Your task to perform on an android device: delete the emails in spam in the gmail app Image 0: 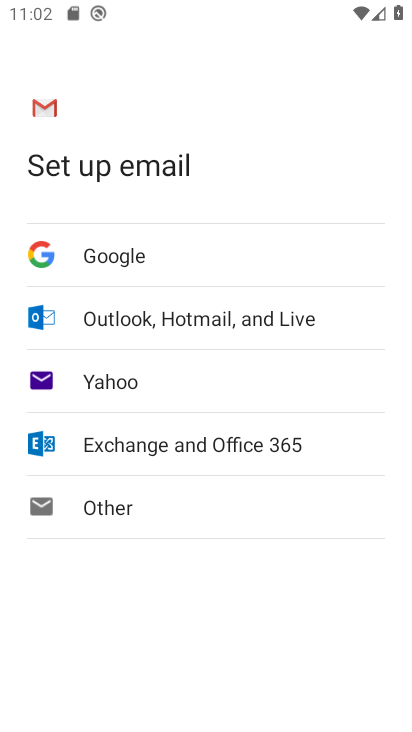
Step 0: press home button
Your task to perform on an android device: delete the emails in spam in the gmail app Image 1: 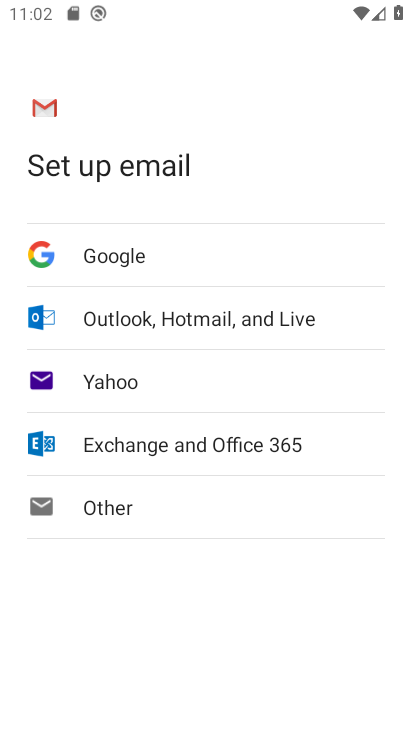
Step 1: press home button
Your task to perform on an android device: delete the emails in spam in the gmail app Image 2: 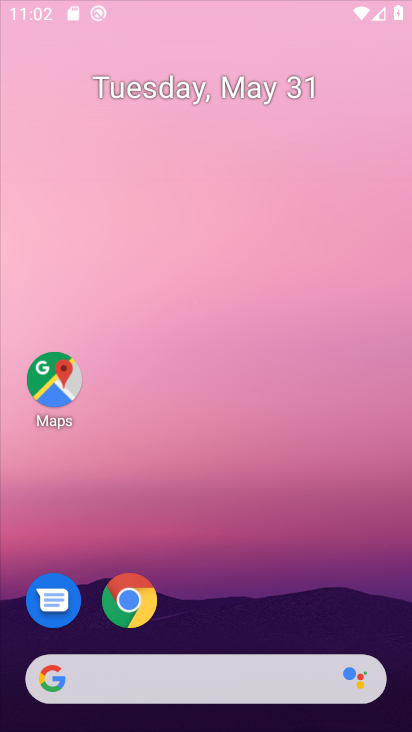
Step 2: press home button
Your task to perform on an android device: delete the emails in spam in the gmail app Image 3: 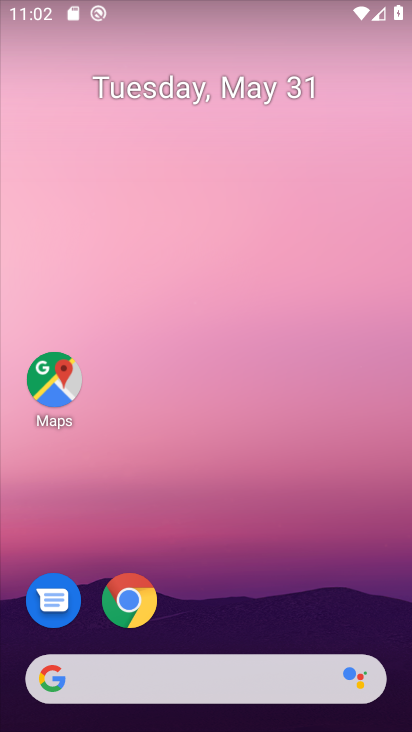
Step 3: press home button
Your task to perform on an android device: delete the emails in spam in the gmail app Image 4: 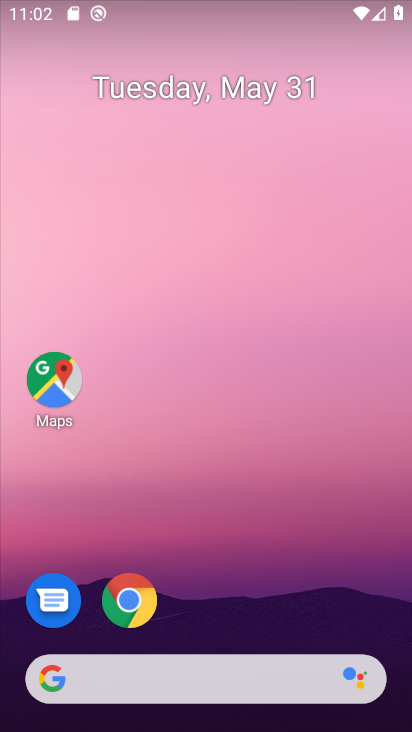
Step 4: drag from (247, 648) to (346, 69)
Your task to perform on an android device: delete the emails in spam in the gmail app Image 5: 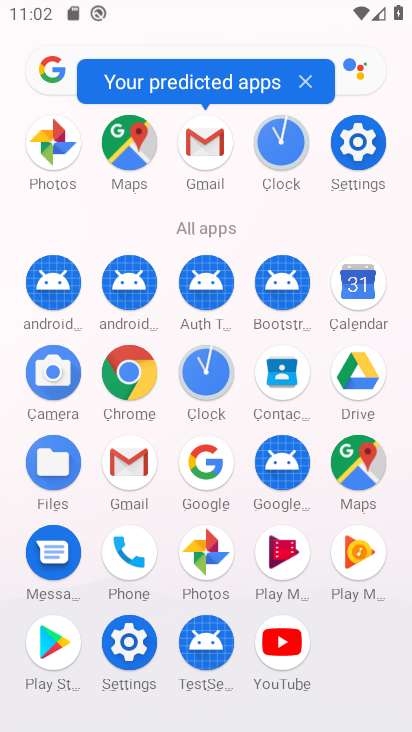
Step 5: click (207, 142)
Your task to perform on an android device: delete the emails in spam in the gmail app Image 6: 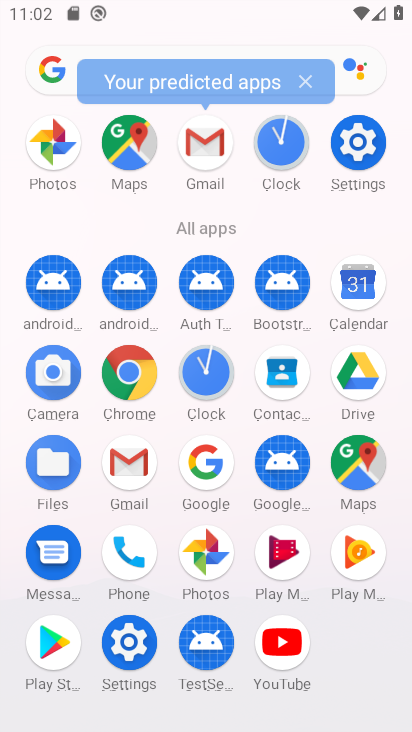
Step 6: click (207, 142)
Your task to perform on an android device: delete the emails in spam in the gmail app Image 7: 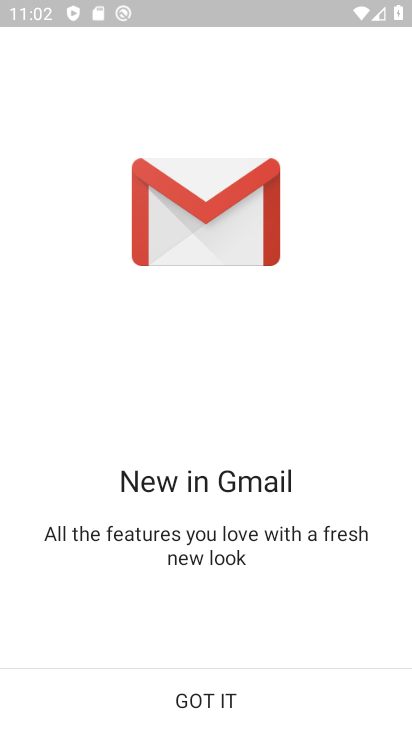
Step 7: click (212, 717)
Your task to perform on an android device: delete the emails in spam in the gmail app Image 8: 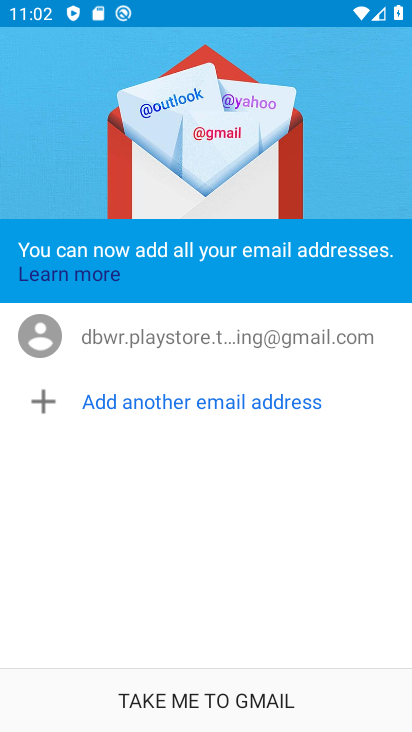
Step 8: click (217, 701)
Your task to perform on an android device: delete the emails in spam in the gmail app Image 9: 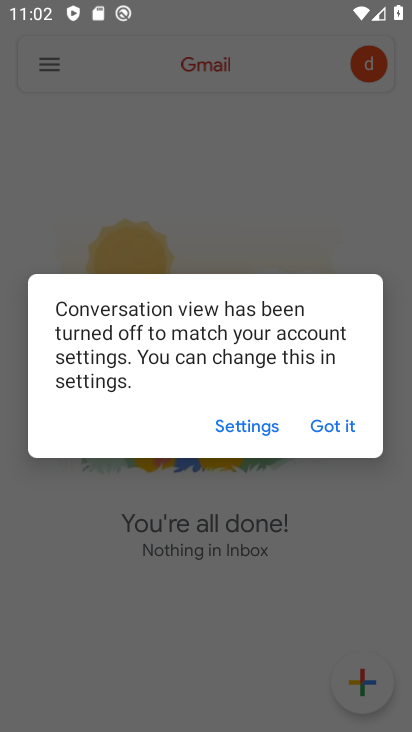
Step 9: click (336, 428)
Your task to perform on an android device: delete the emails in spam in the gmail app Image 10: 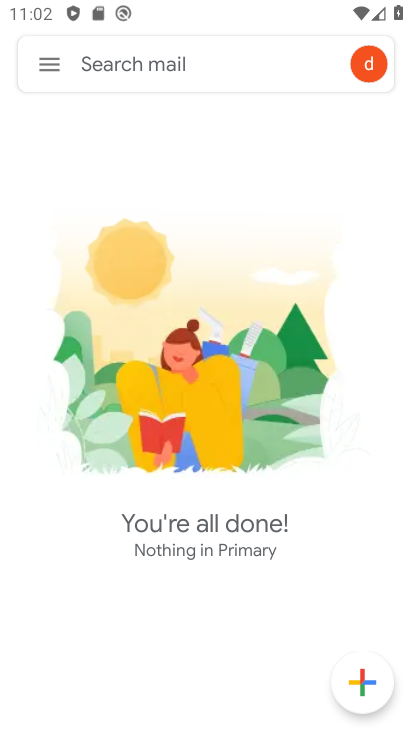
Step 10: click (55, 58)
Your task to perform on an android device: delete the emails in spam in the gmail app Image 11: 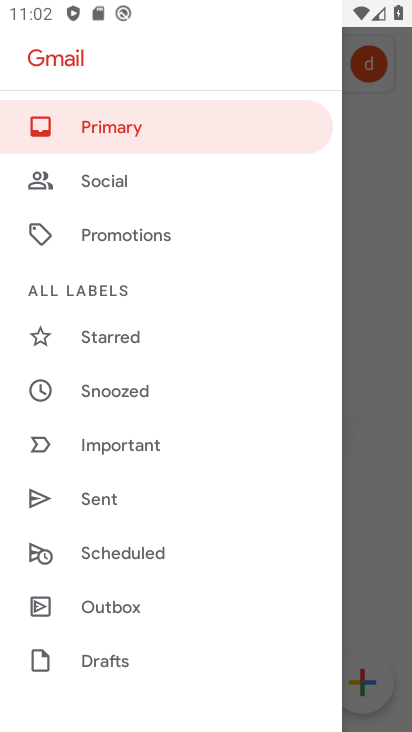
Step 11: drag from (115, 579) to (237, 247)
Your task to perform on an android device: delete the emails in spam in the gmail app Image 12: 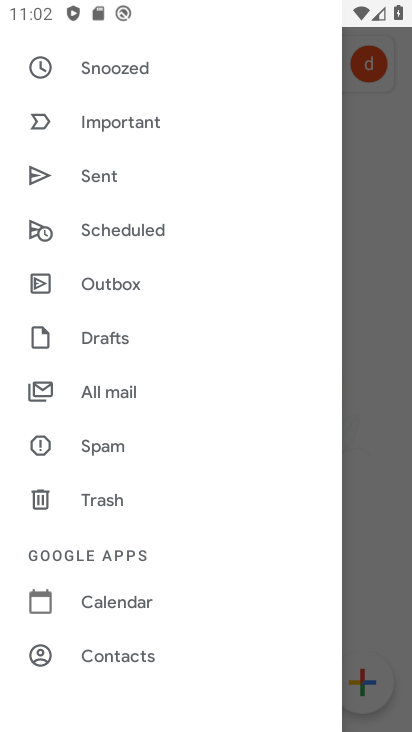
Step 12: click (108, 438)
Your task to perform on an android device: delete the emails in spam in the gmail app Image 13: 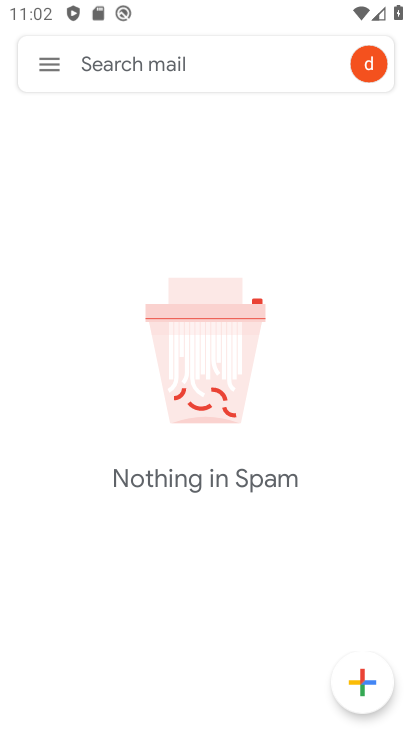
Step 13: task complete